Your task to perform on an android device: Open the web browser Image 0: 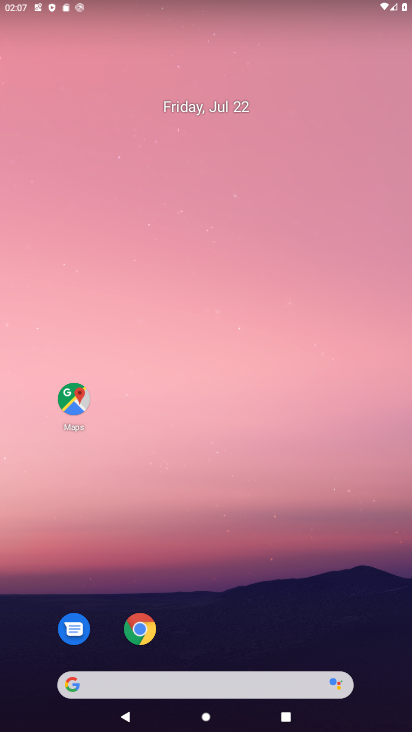
Step 0: drag from (20, 729) to (257, 98)
Your task to perform on an android device: Open the web browser Image 1: 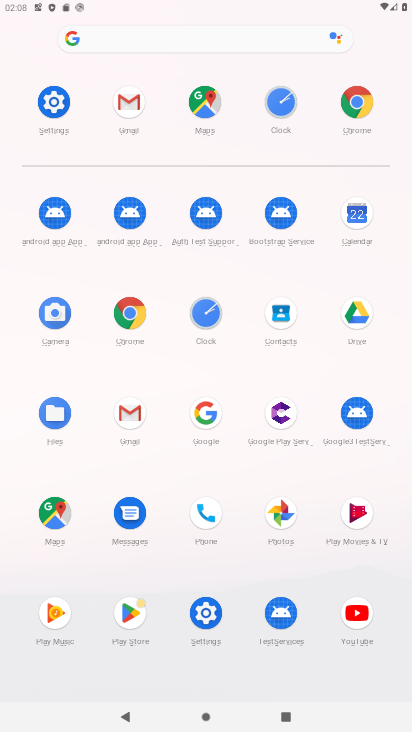
Step 1: click (372, 114)
Your task to perform on an android device: Open the web browser Image 2: 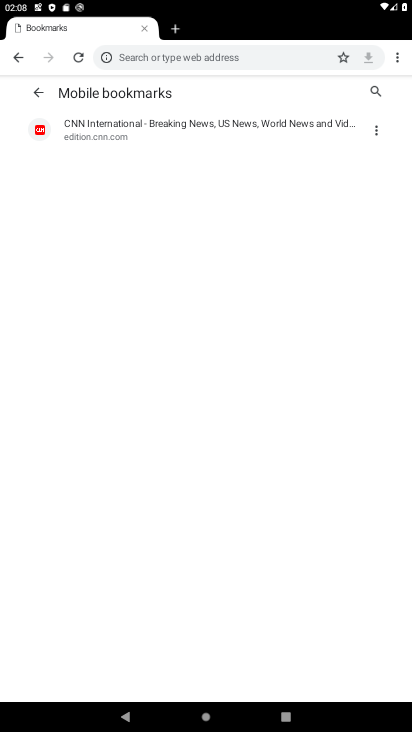
Step 2: task complete